Your task to perform on an android device: Open Chrome and go to the settings page Image 0: 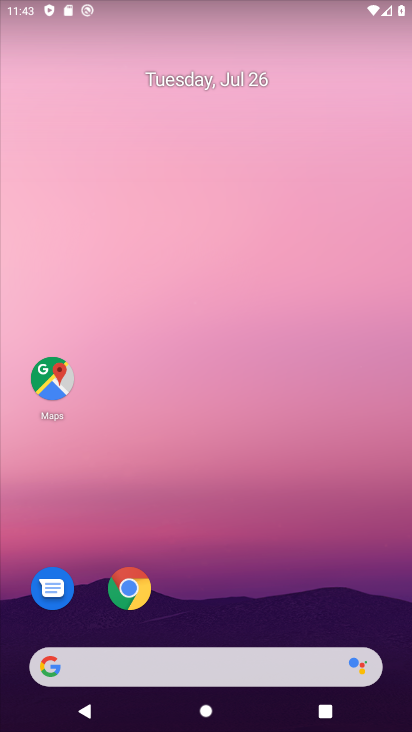
Step 0: click (120, 591)
Your task to perform on an android device: Open Chrome and go to the settings page Image 1: 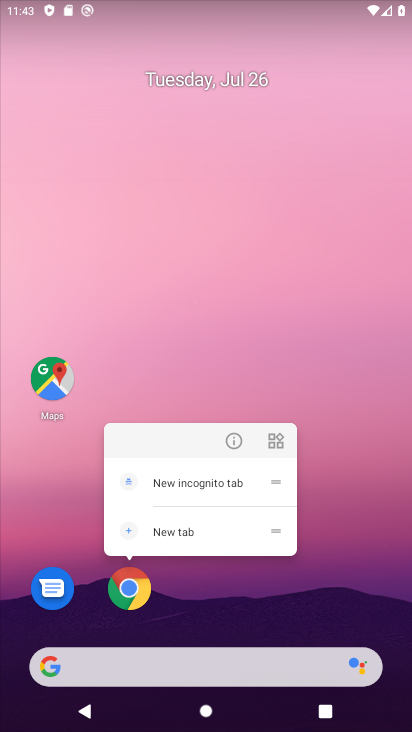
Step 1: click (126, 595)
Your task to perform on an android device: Open Chrome and go to the settings page Image 2: 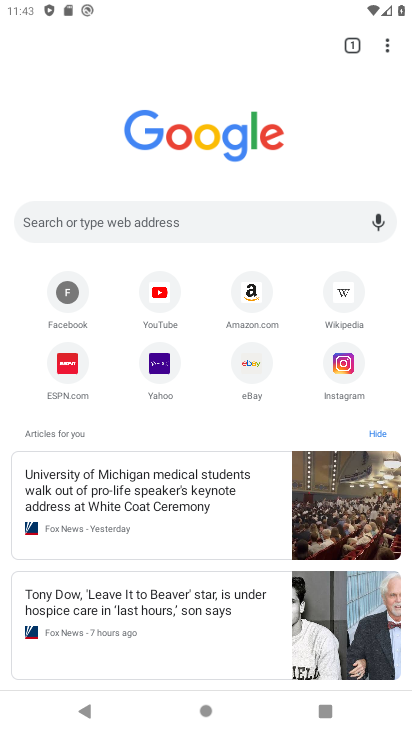
Step 2: click (382, 41)
Your task to perform on an android device: Open Chrome and go to the settings page Image 3: 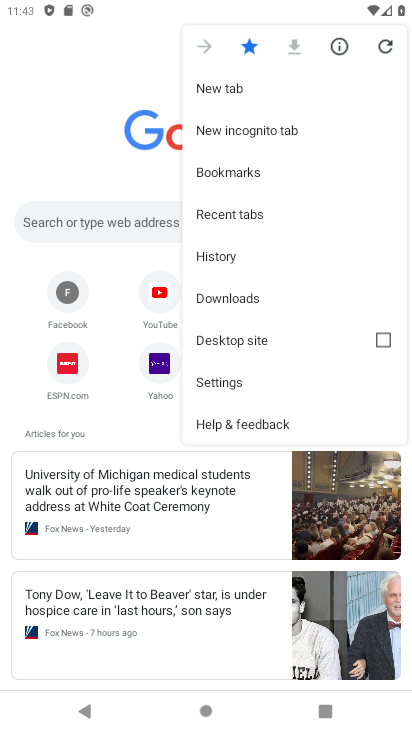
Step 3: click (221, 386)
Your task to perform on an android device: Open Chrome and go to the settings page Image 4: 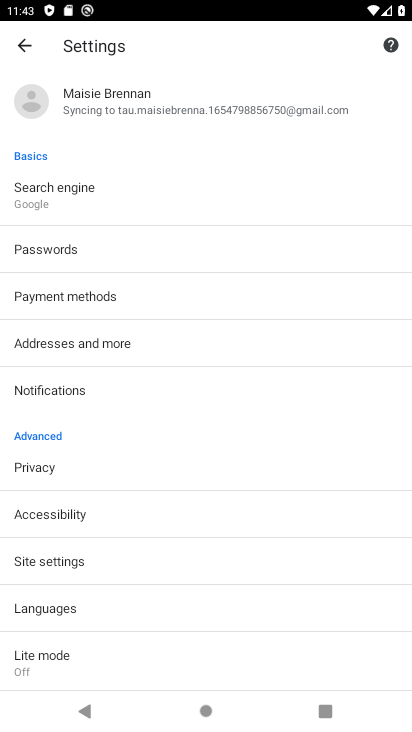
Step 4: task complete